Your task to perform on an android device: Open the Play Movies app and select the watchlist tab. Image 0: 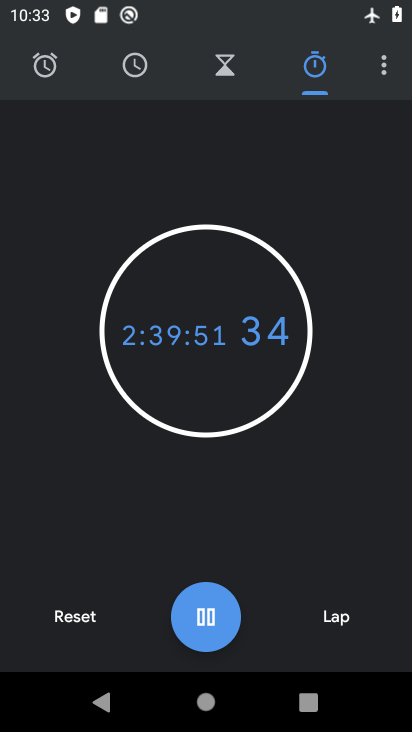
Step 0: press home button
Your task to perform on an android device: Open the Play Movies app and select the watchlist tab. Image 1: 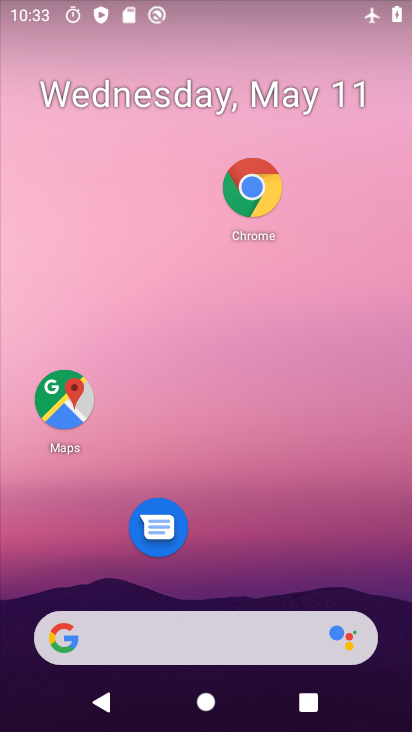
Step 1: drag from (244, 708) to (296, 284)
Your task to perform on an android device: Open the Play Movies app and select the watchlist tab. Image 2: 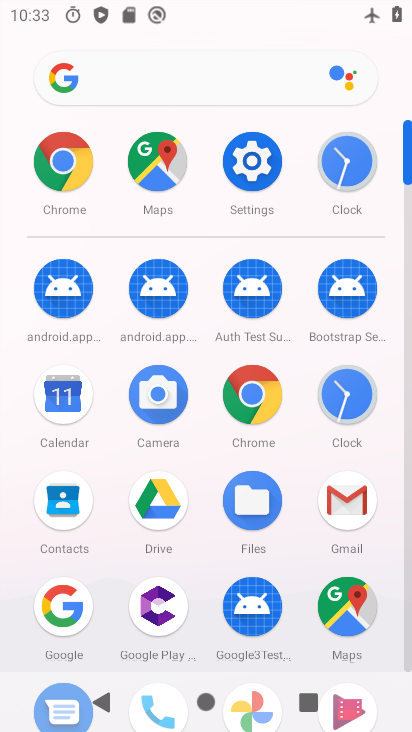
Step 2: drag from (170, 580) to (262, 117)
Your task to perform on an android device: Open the Play Movies app and select the watchlist tab. Image 3: 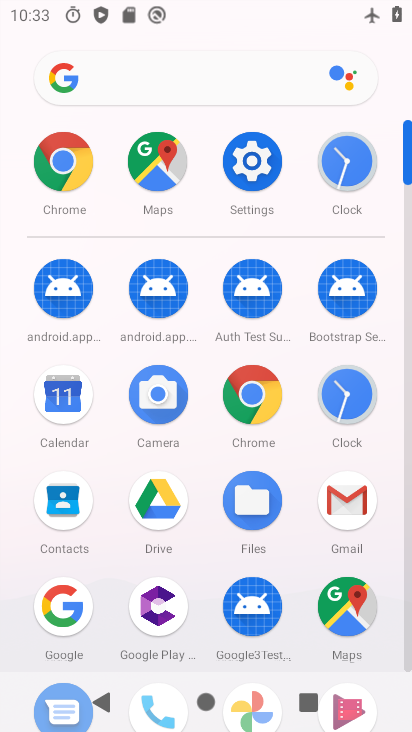
Step 3: drag from (151, 464) to (236, 121)
Your task to perform on an android device: Open the Play Movies app and select the watchlist tab. Image 4: 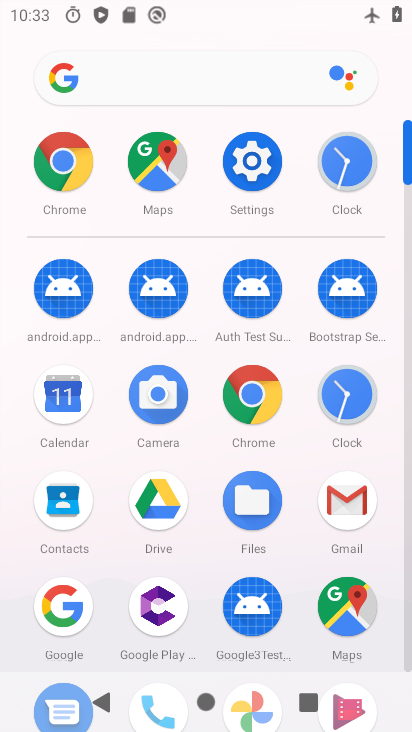
Step 4: drag from (250, 610) to (284, 435)
Your task to perform on an android device: Open the Play Movies app and select the watchlist tab. Image 5: 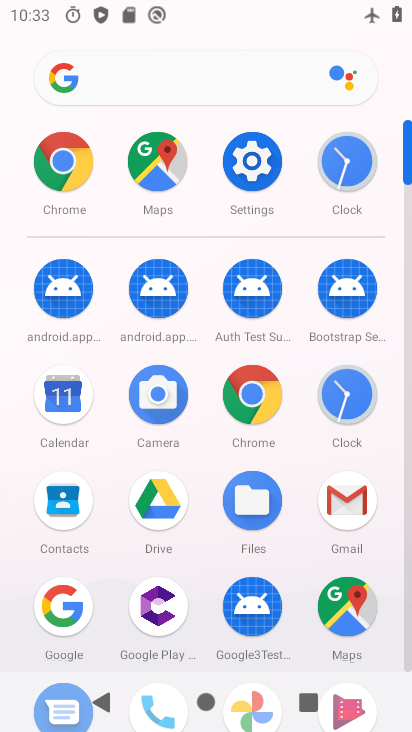
Step 5: drag from (311, 549) to (301, 219)
Your task to perform on an android device: Open the Play Movies app and select the watchlist tab. Image 6: 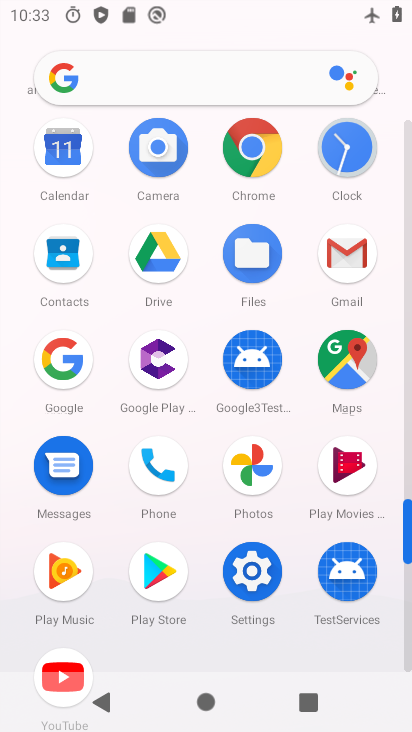
Step 6: click (368, 471)
Your task to perform on an android device: Open the Play Movies app and select the watchlist tab. Image 7: 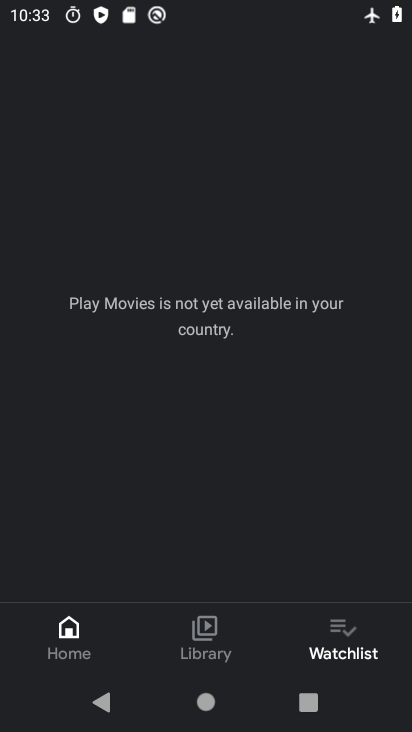
Step 7: click (343, 652)
Your task to perform on an android device: Open the Play Movies app and select the watchlist tab. Image 8: 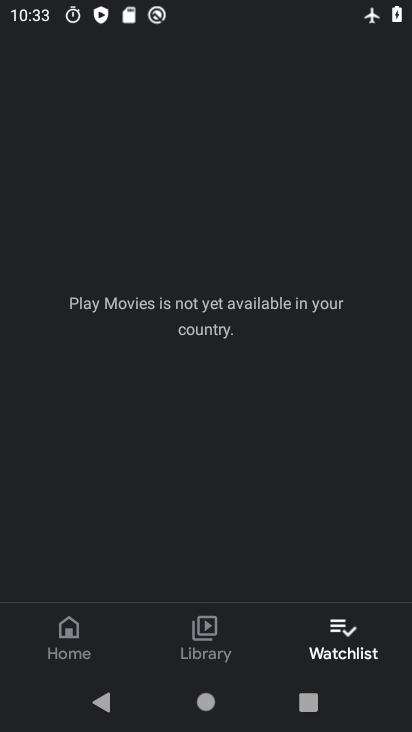
Step 8: task complete